Your task to perform on an android device: Open the web browser Image 0: 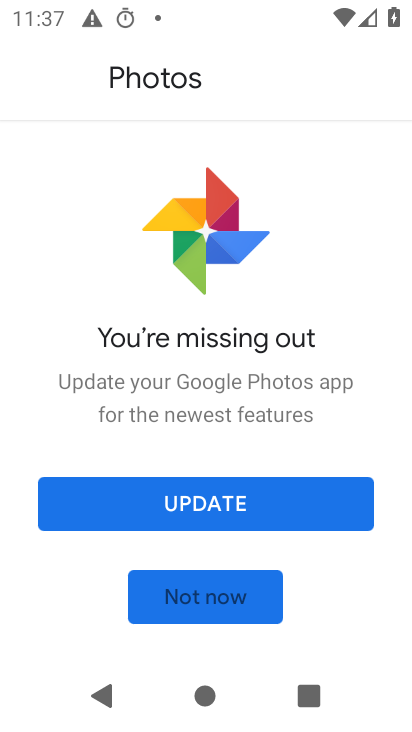
Step 0: press back button
Your task to perform on an android device: Open the web browser Image 1: 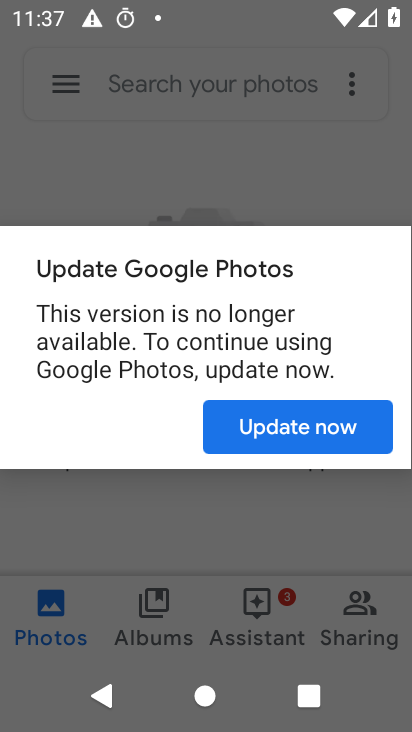
Step 1: press home button
Your task to perform on an android device: Open the web browser Image 2: 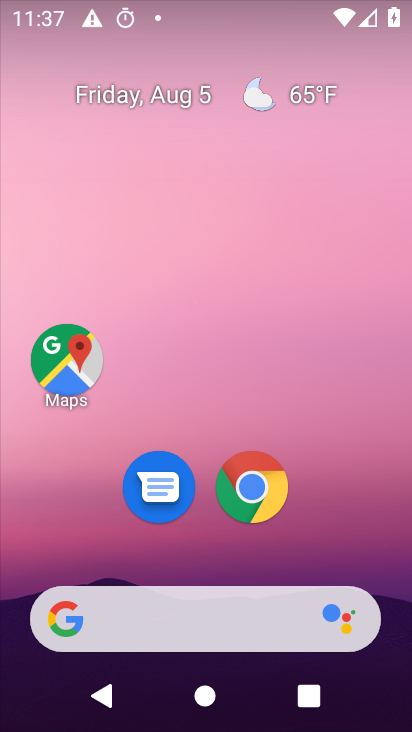
Step 2: click (256, 484)
Your task to perform on an android device: Open the web browser Image 3: 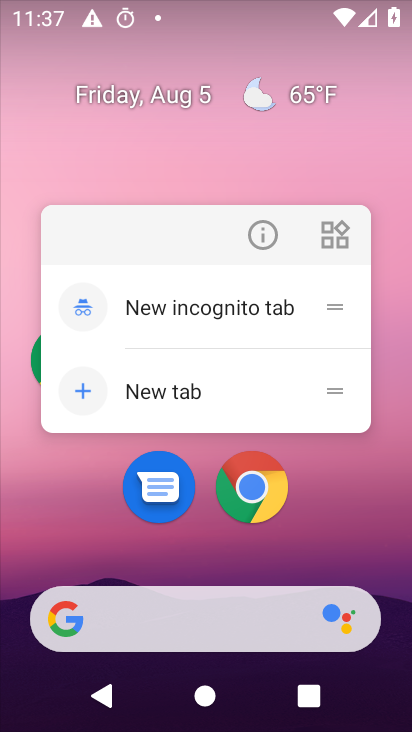
Step 3: click (248, 489)
Your task to perform on an android device: Open the web browser Image 4: 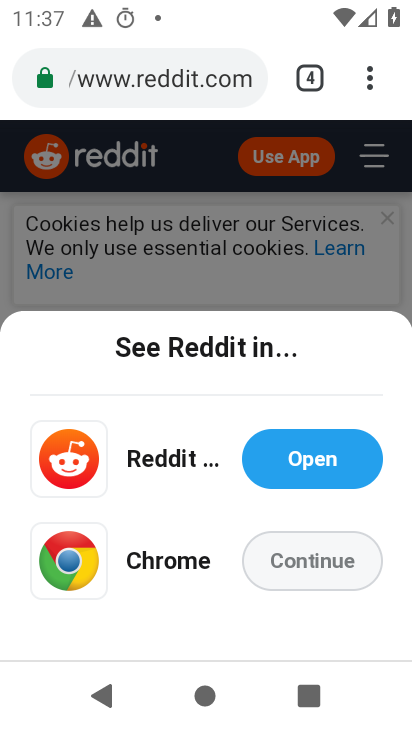
Step 4: task complete